Your task to perform on an android device: Search for "usb-b" on costco, select the first entry, add it to the cart, then select checkout. Image 0: 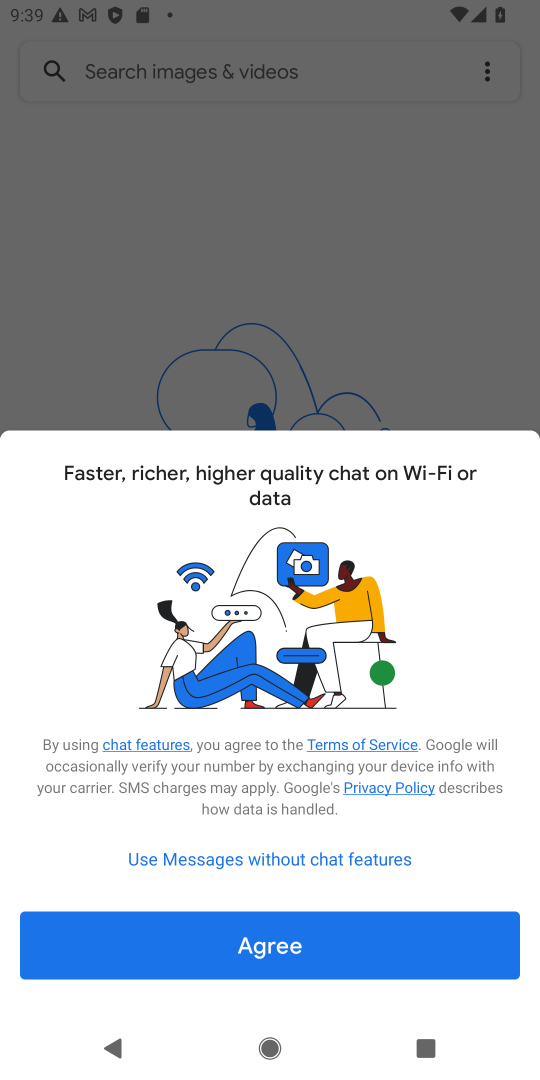
Step 0: press home button
Your task to perform on an android device: Search for "usb-b" on costco, select the first entry, add it to the cart, then select checkout. Image 1: 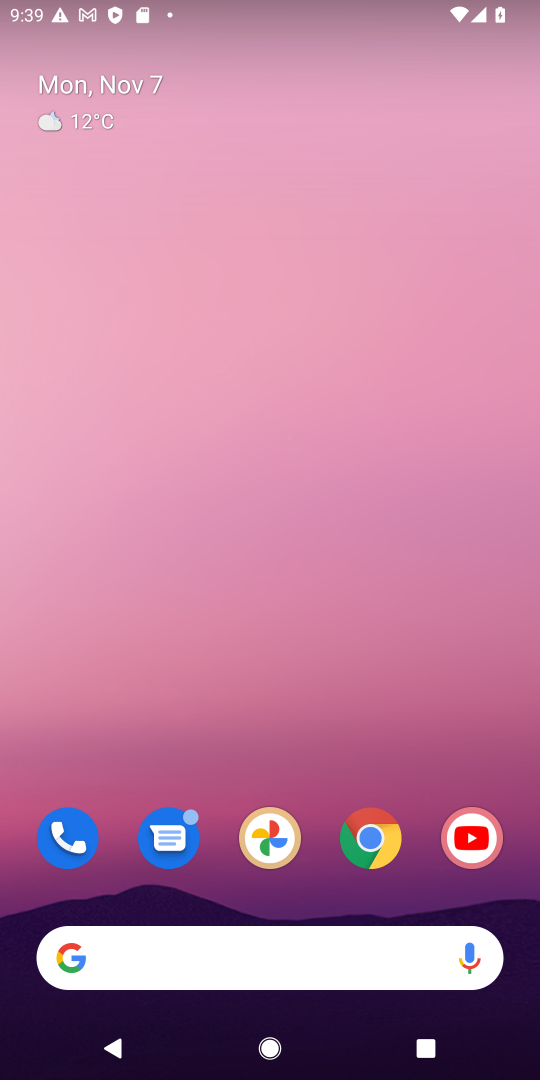
Step 1: click (368, 838)
Your task to perform on an android device: Search for "usb-b" on costco, select the first entry, add it to the cart, then select checkout. Image 2: 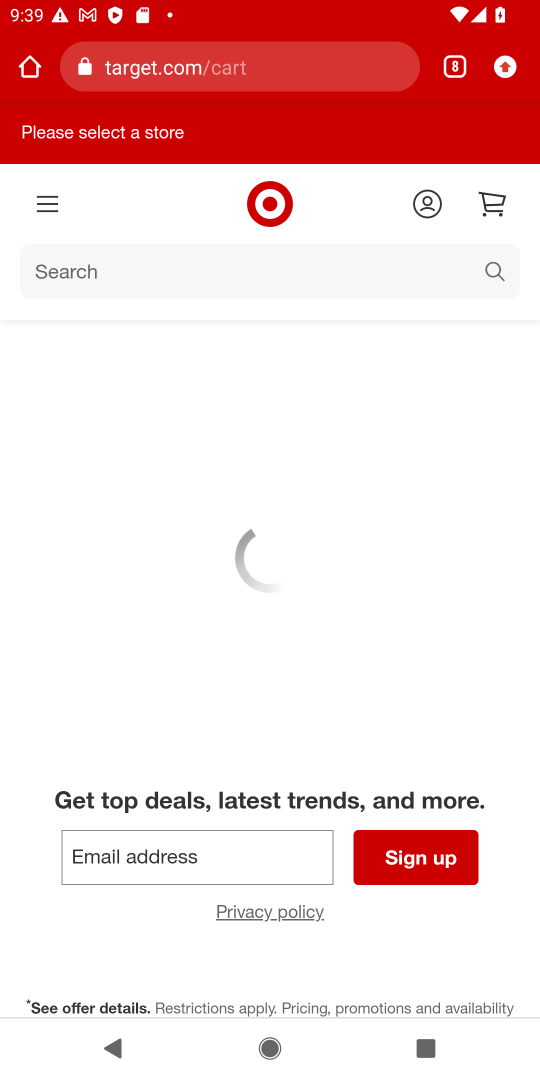
Step 2: click (461, 70)
Your task to perform on an android device: Search for "usb-b" on costco, select the first entry, add it to the cart, then select checkout. Image 3: 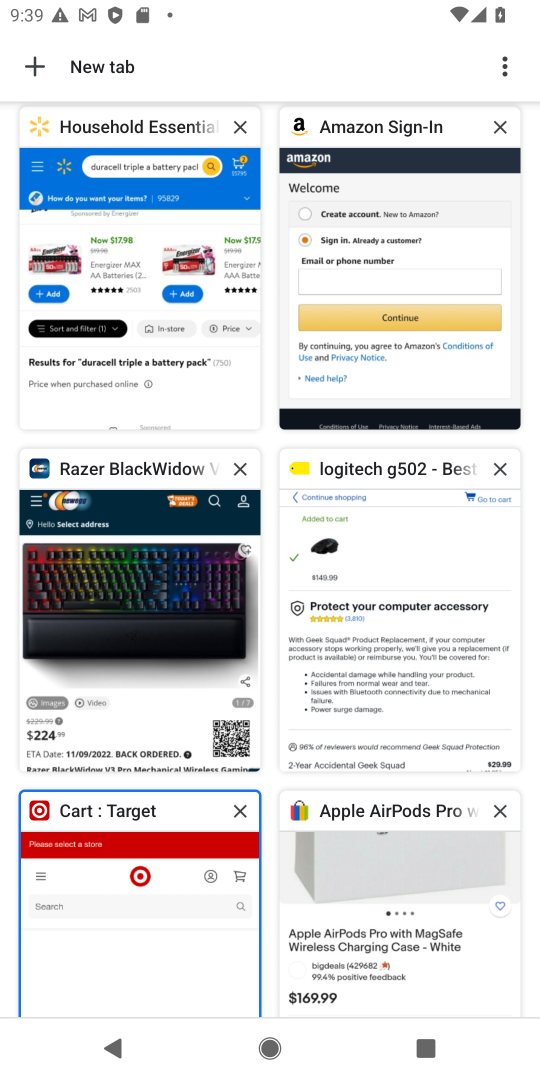
Step 3: drag from (389, 861) to (434, 112)
Your task to perform on an android device: Search for "usb-b" on costco, select the first entry, add it to the cart, then select checkout. Image 4: 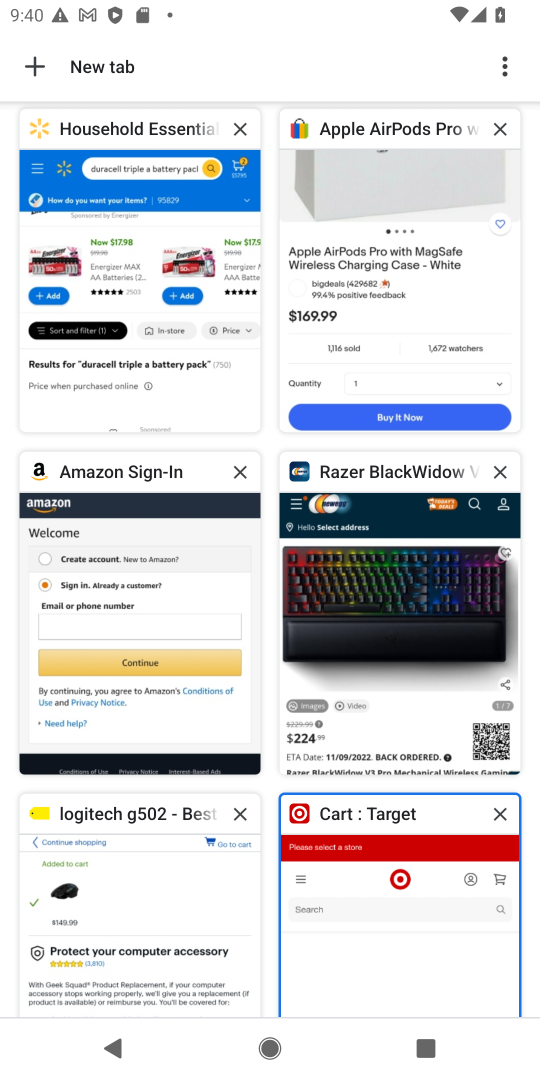
Step 4: drag from (352, 831) to (419, 103)
Your task to perform on an android device: Search for "usb-b" on costco, select the first entry, add it to the cart, then select checkout. Image 5: 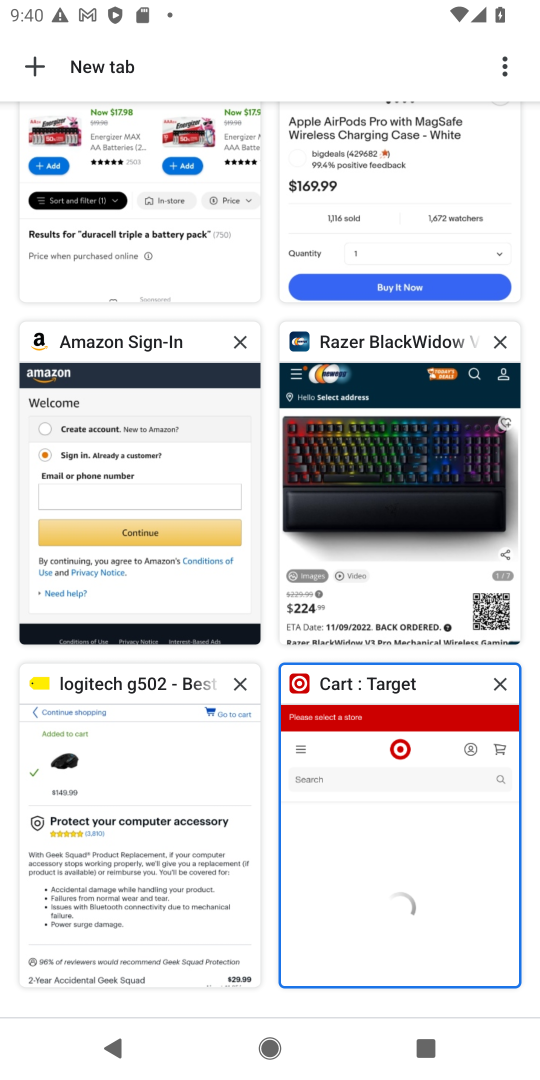
Step 5: click (34, 68)
Your task to perform on an android device: Search for "usb-b" on costco, select the first entry, add it to the cart, then select checkout. Image 6: 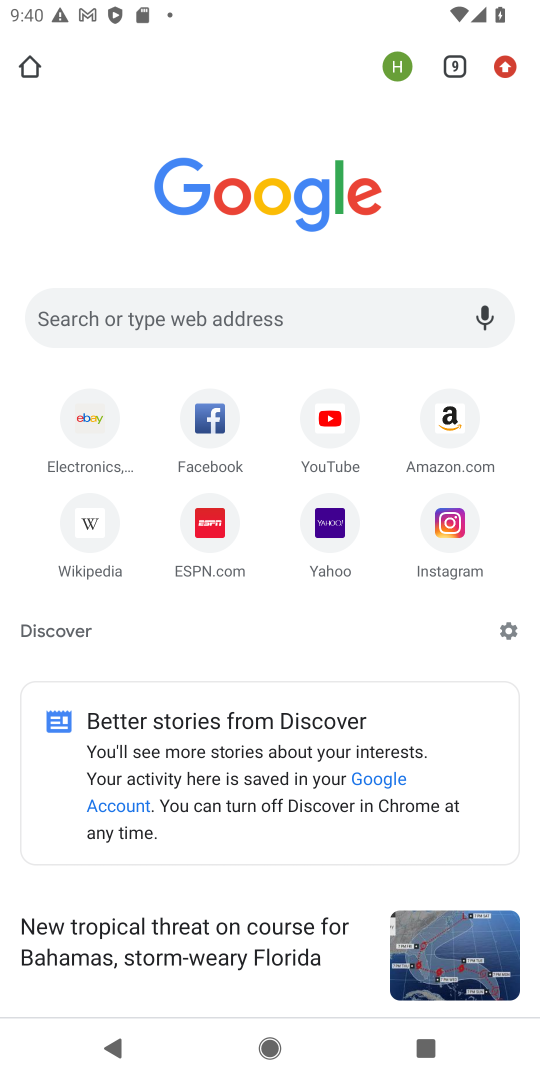
Step 6: click (201, 311)
Your task to perform on an android device: Search for "usb-b" on costco, select the first entry, add it to the cart, then select checkout. Image 7: 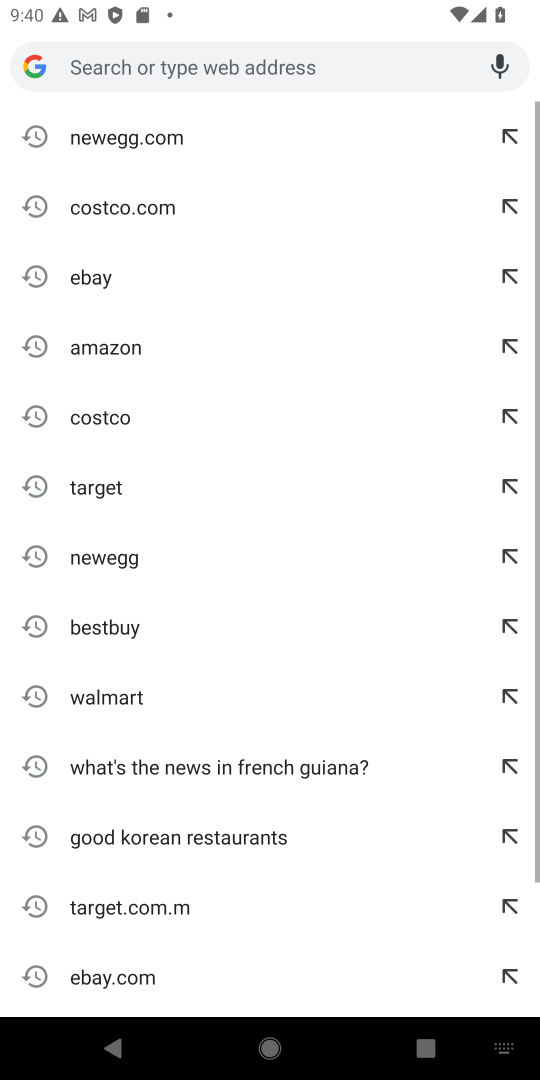
Step 7: click (121, 207)
Your task to perform on an android device: Search for "usb-b" on costco, select the first entry, add it to the cart, then select checkout. Image 8: 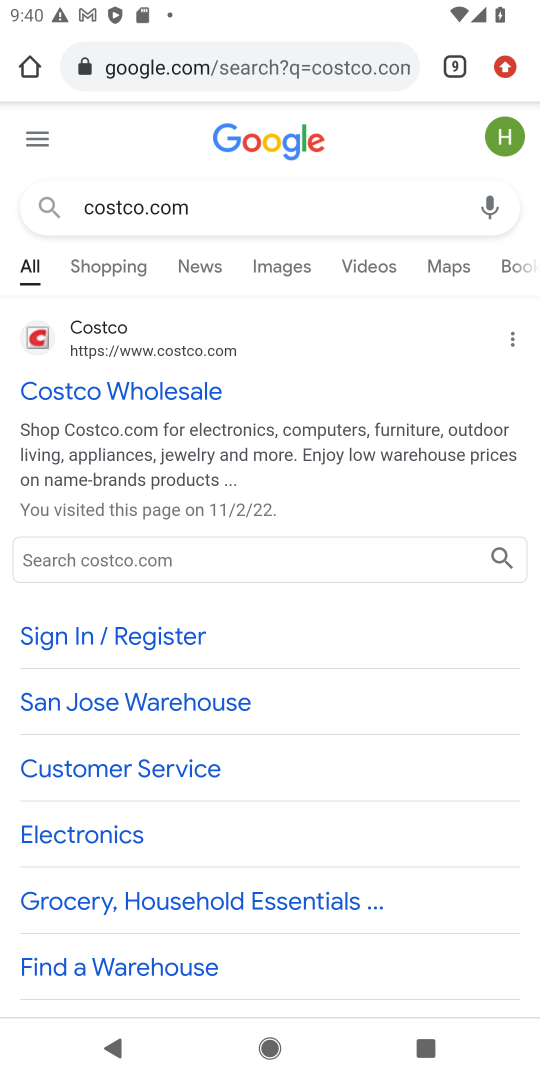
Step 8: click (75, 558)
Your task to perform on an android device: Search for "usb-b" on costco, select the first entry, add it to the cart, then select checkout. Image 9: 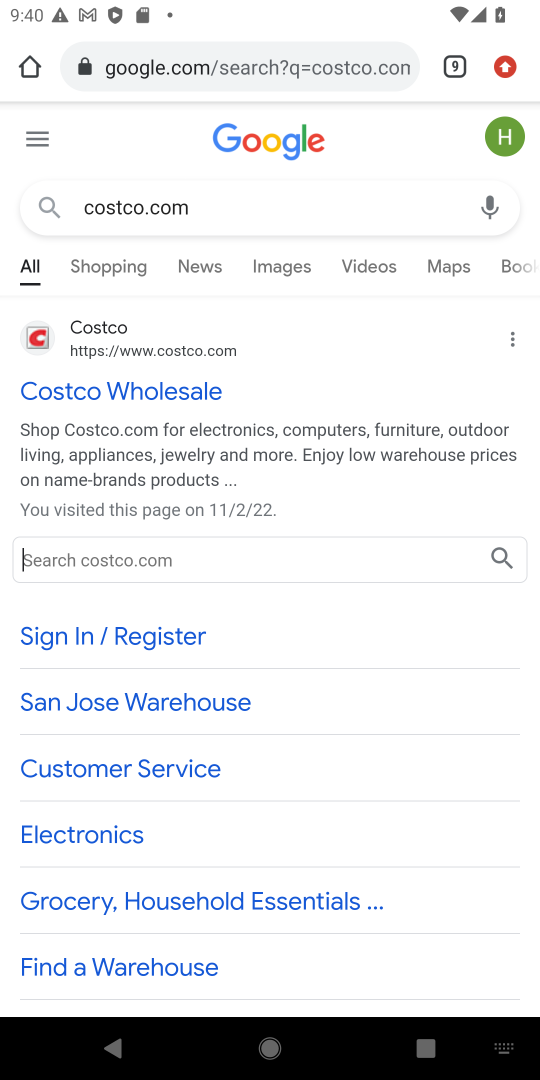
Step 9: type "usb-b"
Your task to perform on an android device: Search for "usb-b" on costco, select the first entry, add it to the cart, then select checkout. Image 10: 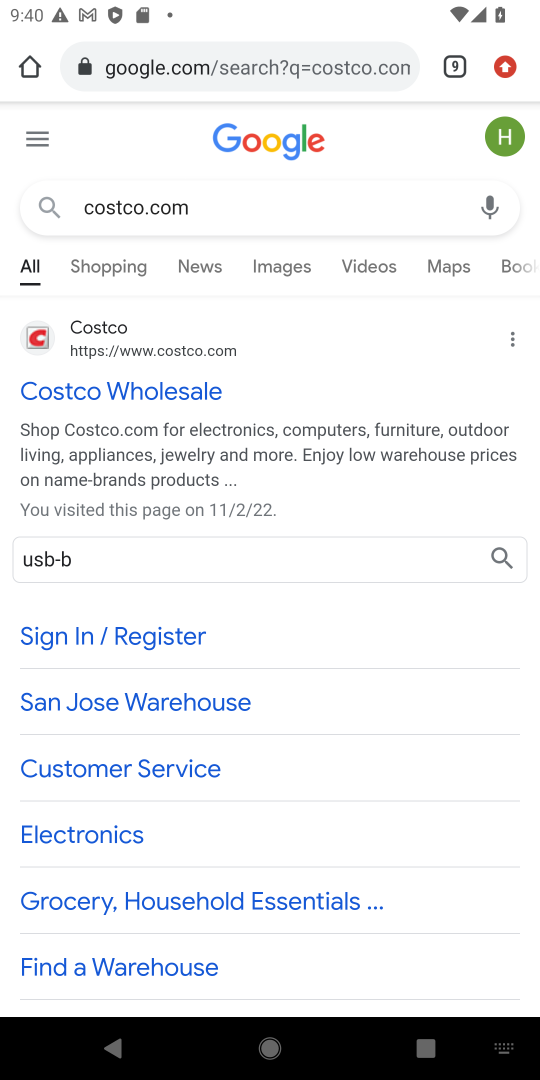
Step 10: click (503, 554)
Your task to perform on an android device: Search for "usb-b" on costco, select the first entry, add it to the cart, then select checkout. Image 11: 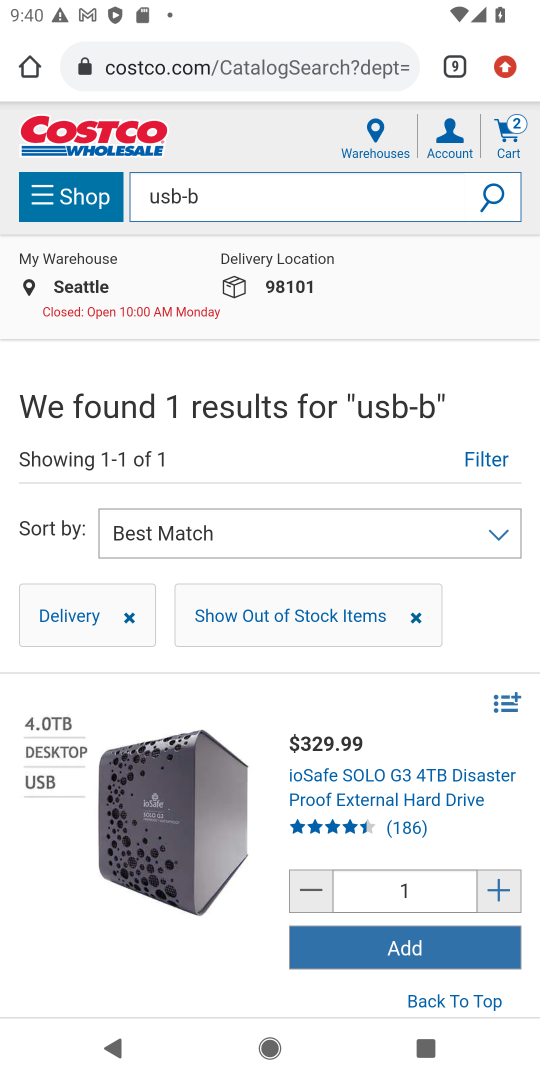
Step 11: click (393, 946)
Your task to perform on an android device: Search for "usb-b" on costco, select the first entry, add it to the cart, then select checkout. Image 12: 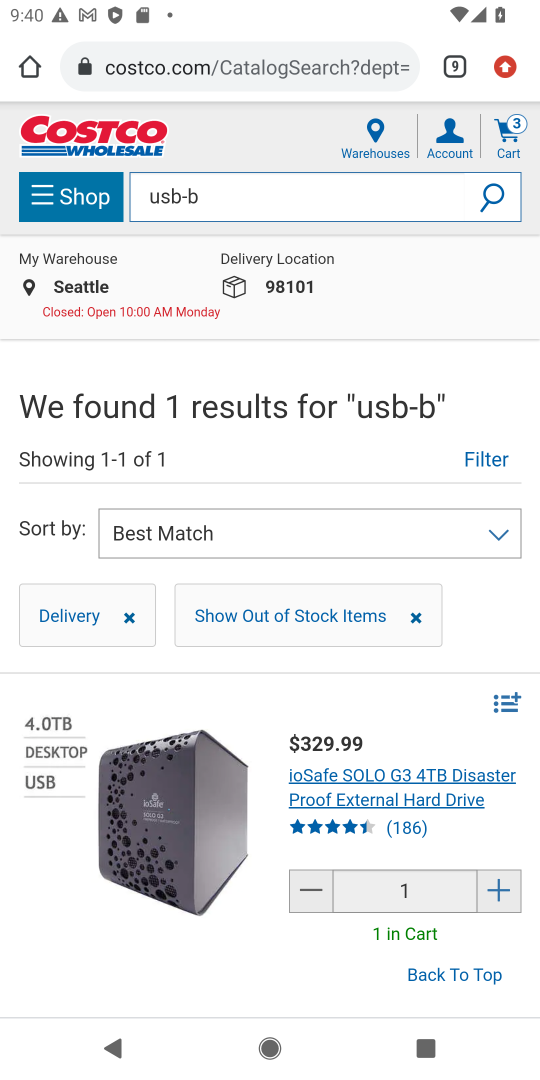
Step 12: click (511, 133)
Your task to perform on an android device: Search for "usb-b" on costco, select the first entry, add it to the cart, then select checkout. Image 13: 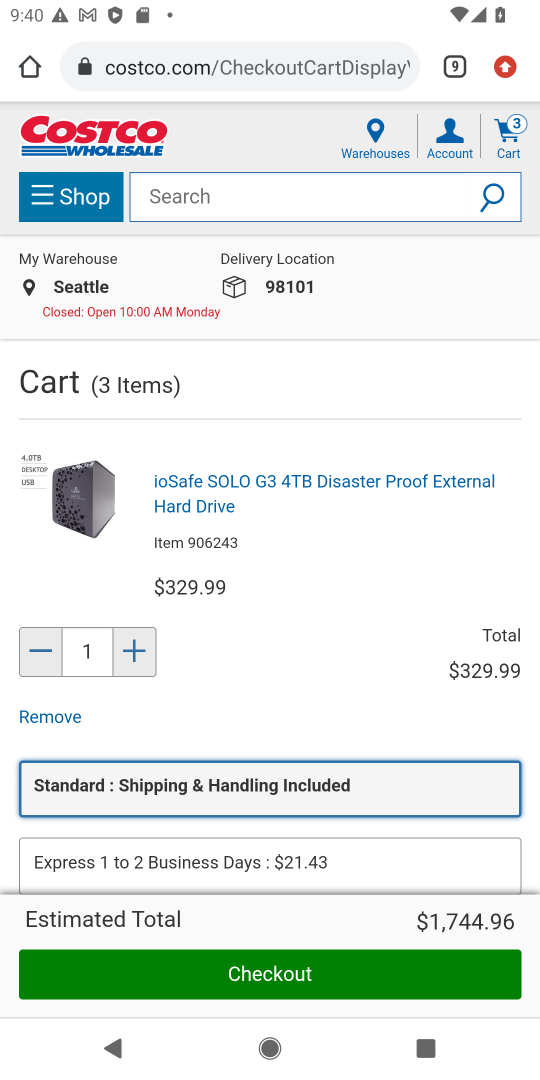
Step 13: click (305, 982)
Your task to perform on an android device: Search for "usb-b" on costco, select the first entry, add it to the cart, then select checkout. Image 14: 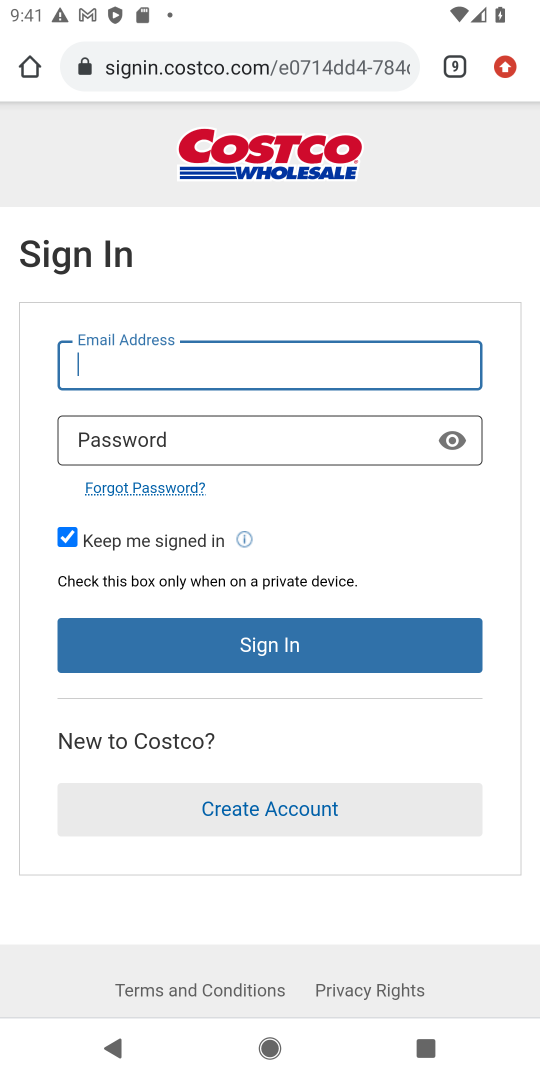
Step 14: task complete